Your task to perform on an android device: Search for sushi restaurants on Maps Image 0: 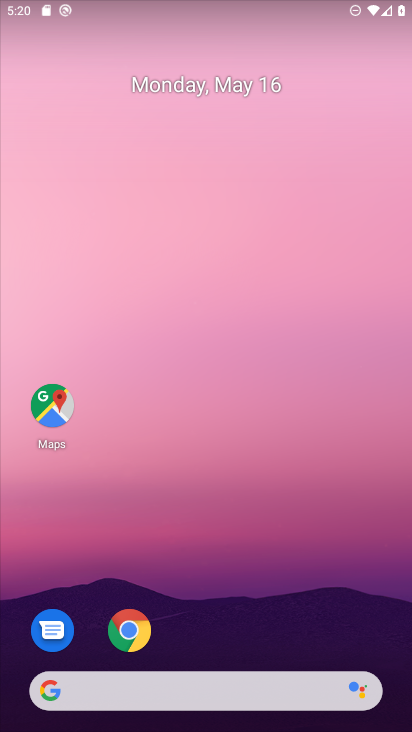
Step 0: press home button
Your task to perform on an android device: Search for sushi restaurants on Maps Image 1: 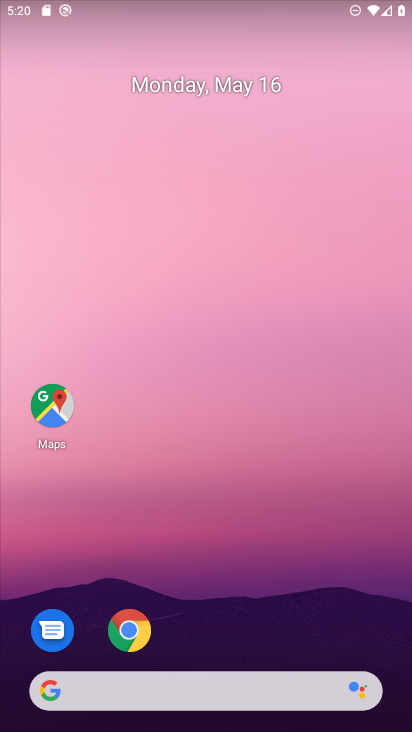
Step 1: click (125, 636)
Your task to perform on an android device: Search for sushi restaurants on Maps Image 2: 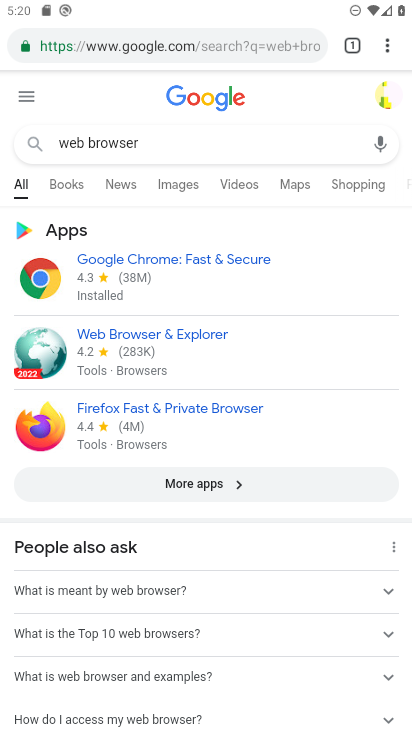
Step 2: click (202, 138)
Your task to perform on an android device: Search for sushi restaurants on Maps Image 3: 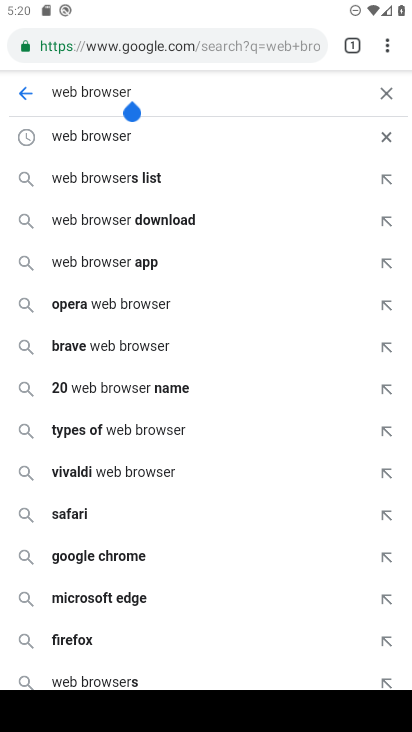
Step 3: press home button
Your task to perform on an android device: Search for sushi restaurants on Maps Image 4: 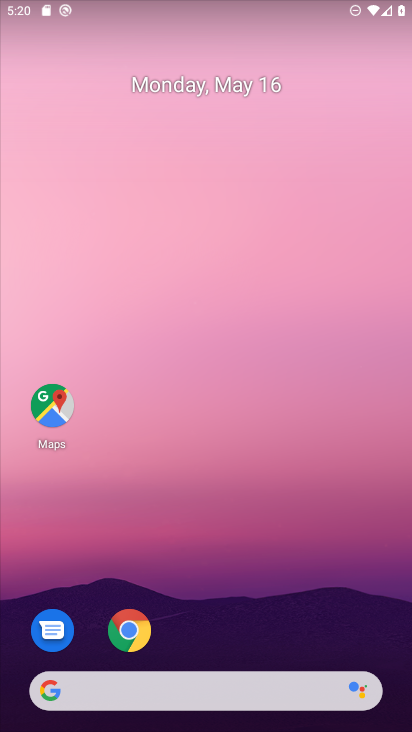
Step 4: click (53, 411)
Your task to perform on an android device: Search for sushi restaurants on Maps Image 5: 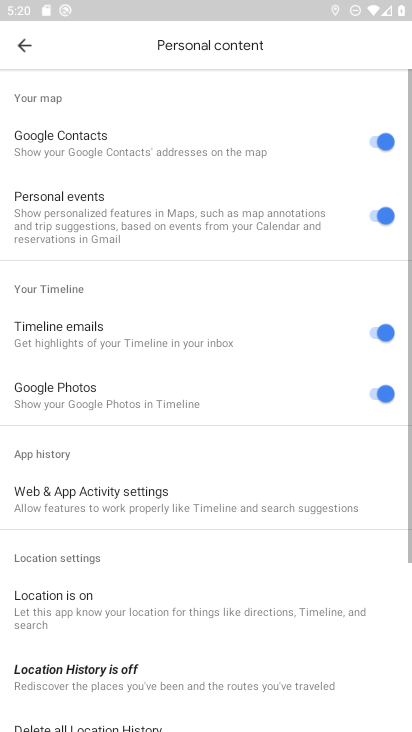
Step 5: click (37, 43)
Your task to perform on an android device: Search for sushi restaurants on Maps Image 6: 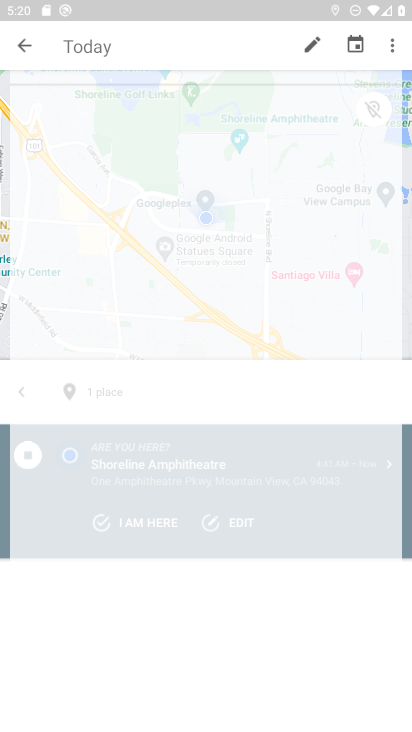
Step 6: click (37, 43)
Your task to perform on an android device: Search for sushi restaurants on Maps Image 7: 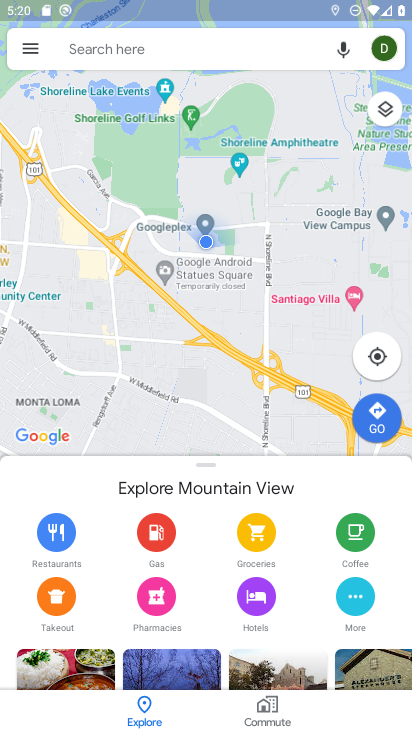
Step 7: click (79, 49)
Your task to perform on an android device: Search for sushi restaurants on Maps Image 8: 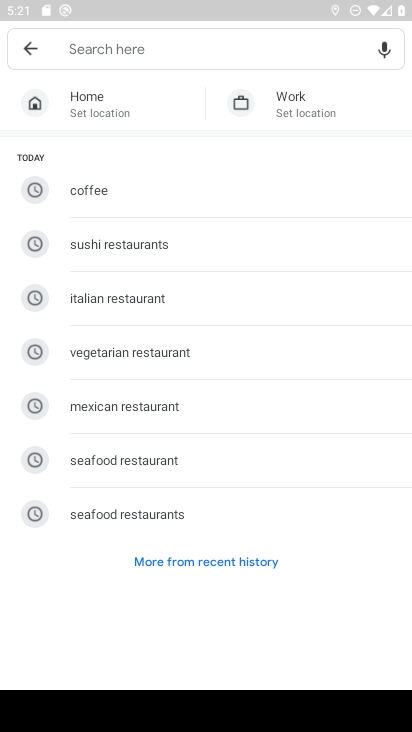
Step 8: type "Wikipedia"
Your task to perform on an android device: Search for sushi restaurants on Maps Image 9: 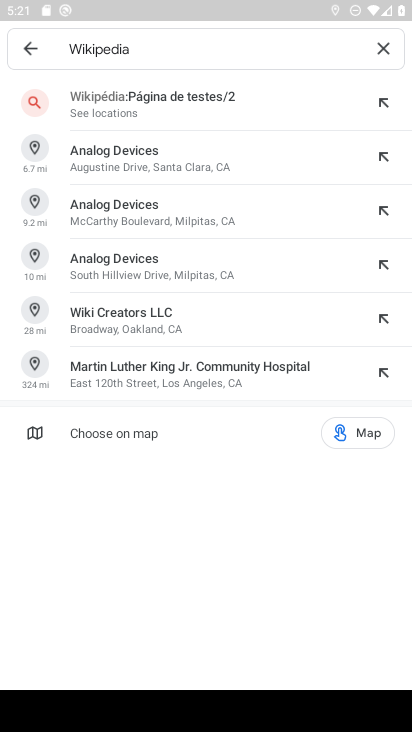
Step 9: type "sushi restaurants "
Your task to perform on an android device: Search for sushi restaurants on Maps Image 10: 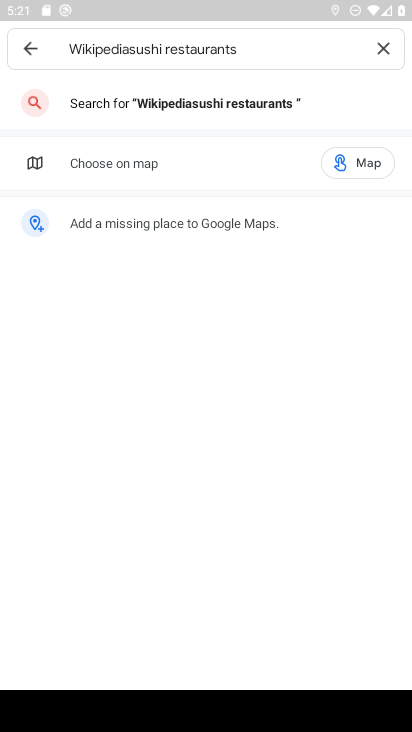
Step 10: click (128, 45)
Your task to perform on an android device: Search for sushi restaurants on Maps Image 11: 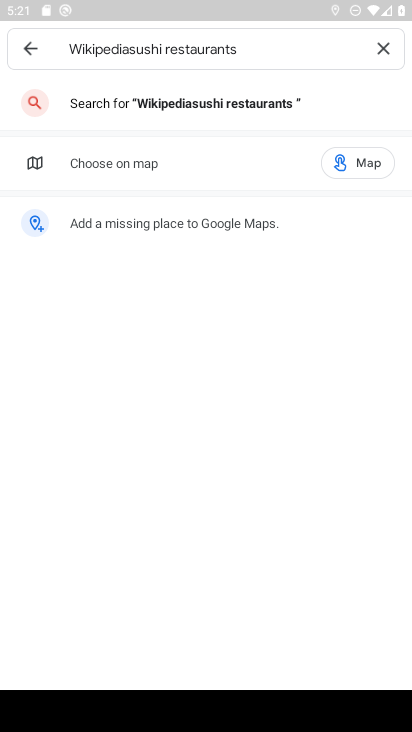
Step 11: click (128, 45)
Your task to perform on an android device: Search for sushi restaurants on Maps Image 12: 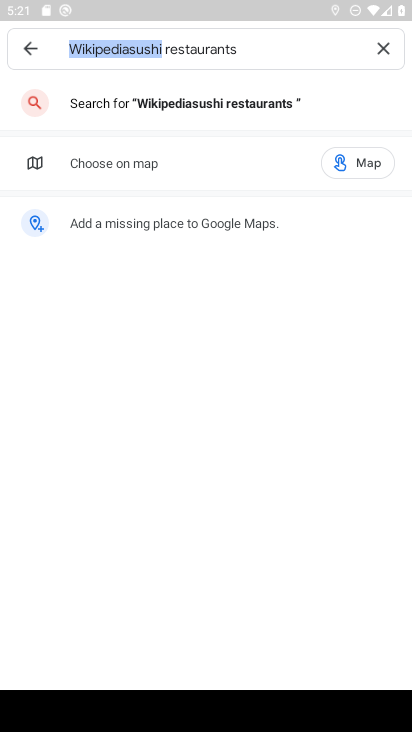
Step 12: click (128, 45)
Your task to perform on an android device: Search for sushi restaurants on Maps Image 13: 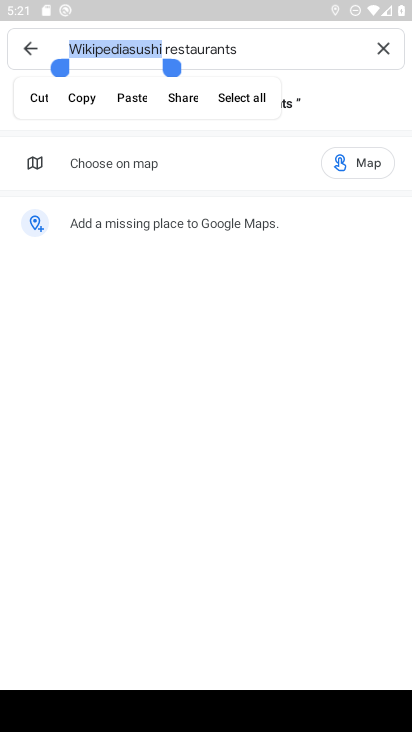
Step 13: click (128, 45)
Your task to perform on an android device: Search for sushi restaurants on Maps Image 14: 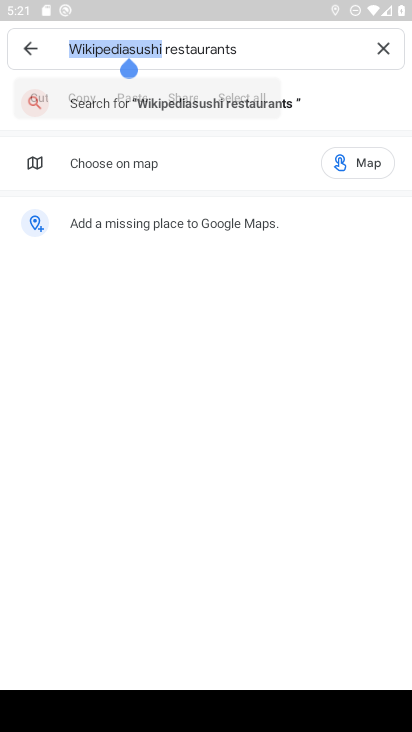
Step 14: click (128, 45)
Your task to perform on an android device: Search for sushi restaurants on Maps Image 15: 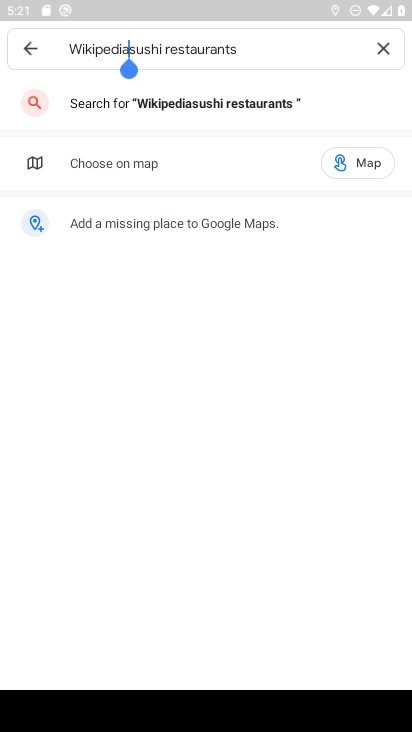
Step 15: click (385, 46)
Your task to perform on an android device: Search for sushi restaurants on Maps Image 16: 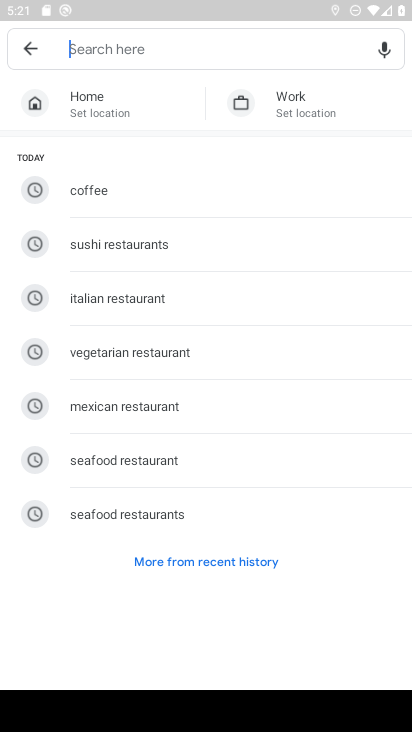
Step 16: type "sushi restaurants "
Your task to perform on an android device: Search for sushi restaurants on Maps Image 17: 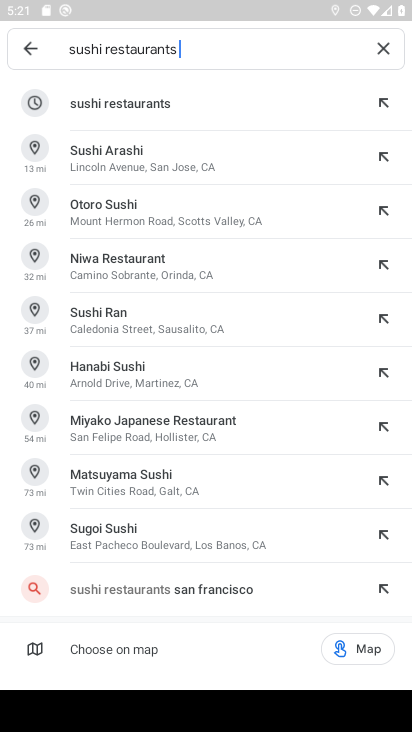
Step 17: click (162, 95)
Your task to perform on an android device: Search for sushi restaurants on Maps Image 18: 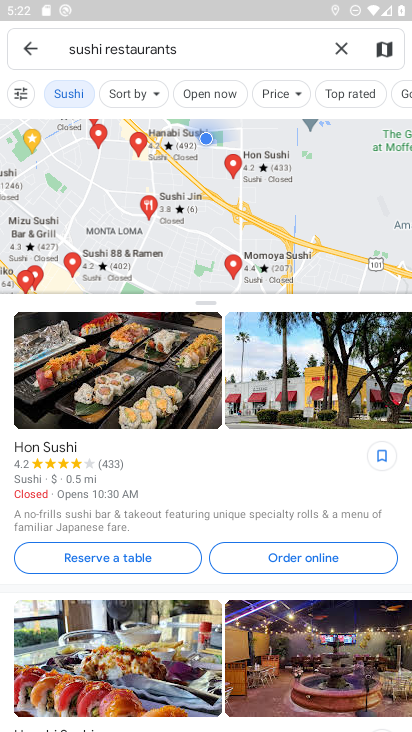
Step 18: task complete